Your task to perform on an android device: Find coffee shops on Maps Image 0: 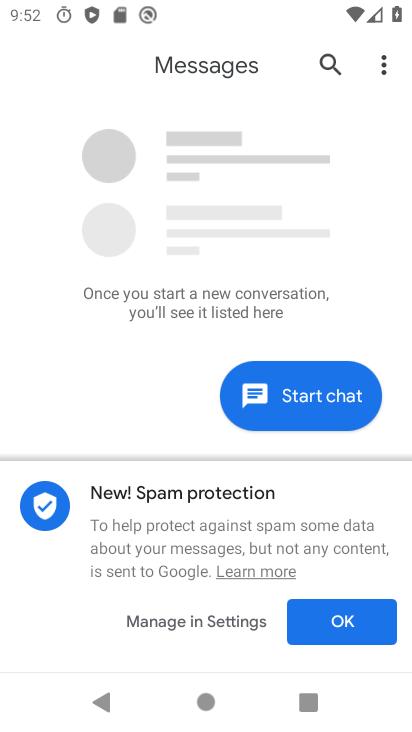
Step 0: press home button
Your task to perform on an android device: Find coffee shops on Maps Image 1: 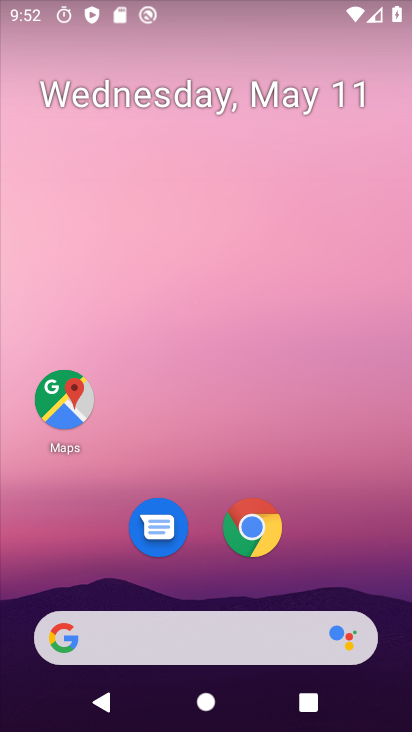
Step 1: drag from (311, 600) to (312, 52)
Your task to perform on an android device: Find coffee shops on Maps Image 2: 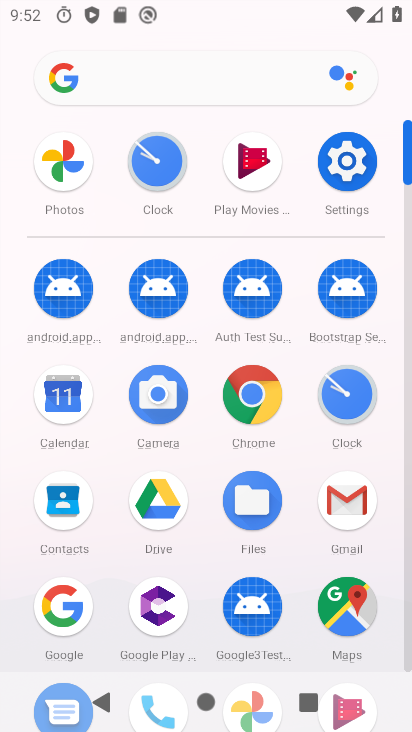
Step 2: click (352, 604)
Your task to perform on an android device: Find coffee shops on Maps Image 3: 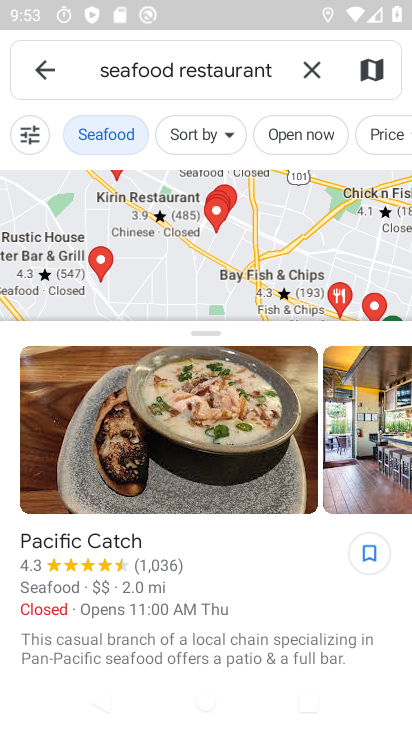
Step 3: click (315, 71)
Your task to perform on an android device: Find coffee shops on Maps Image 4: 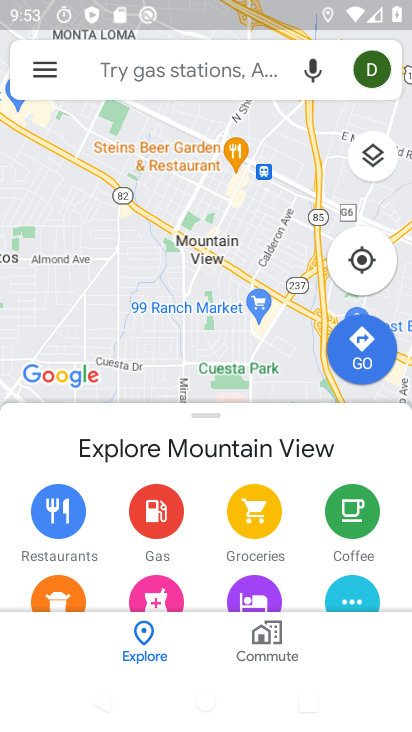
Step 4: click (231, 73)
Your task to perform on an android device: Find coffee shops on Maps Image 5: 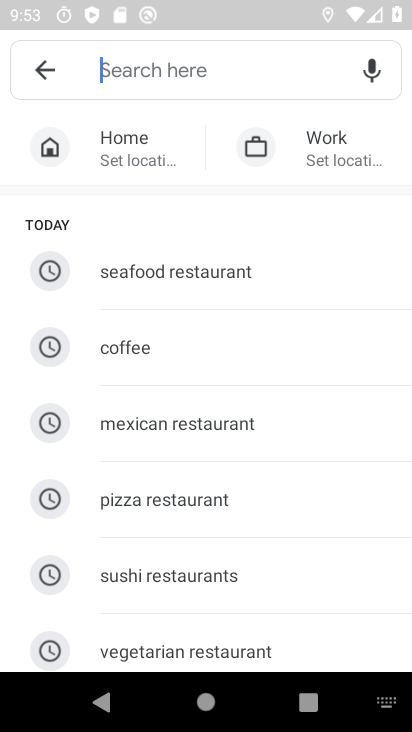
Step 5: type "coffee shops"
Your task to perform on an android device: Find coffee shops on Maps Image 6: 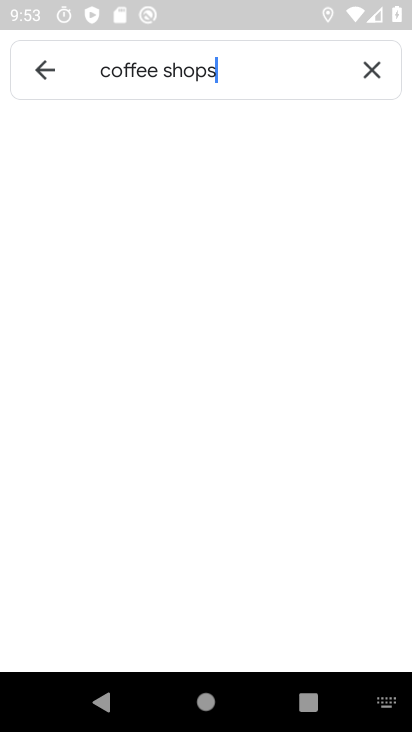
Step 6: type ""
Your task to perform on an android device: Find coffee shops on Maps Image 7: 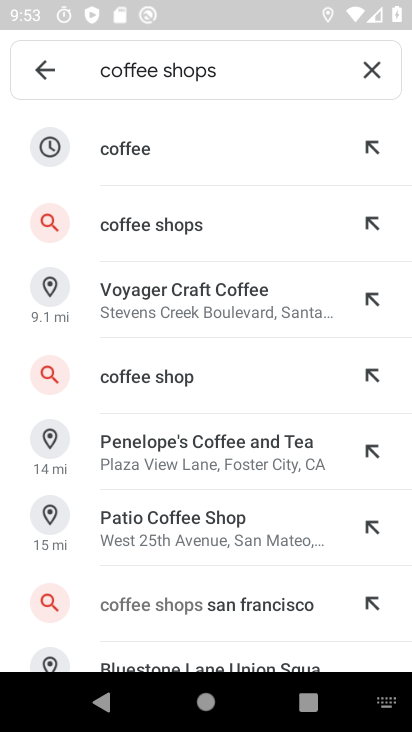
Step 7: click (222, 227)
Your task to perform on an android device: Find coffee shops on Maps Image 8: 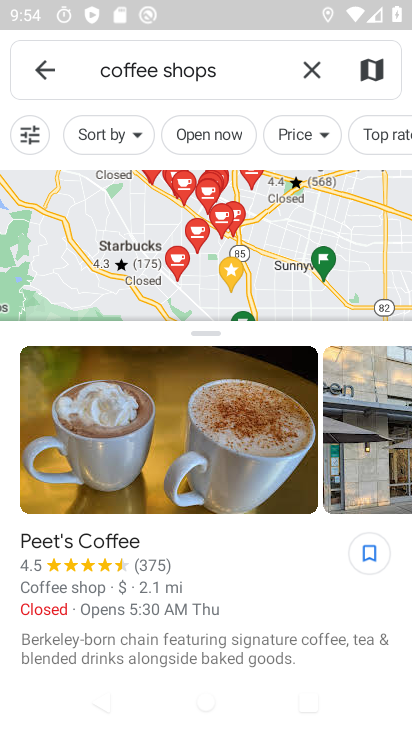
Step 8: task complete